Your task to perform on an android device: Open the Play Movies app and select the watchlist tab. Image 0: 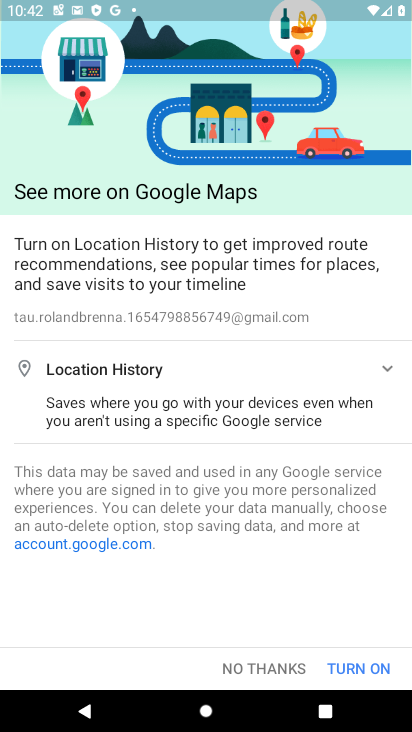
Step 0: press home button
Your task to perform on an android device: Open the Play Movies app and select the watchlist tab. Image 1: 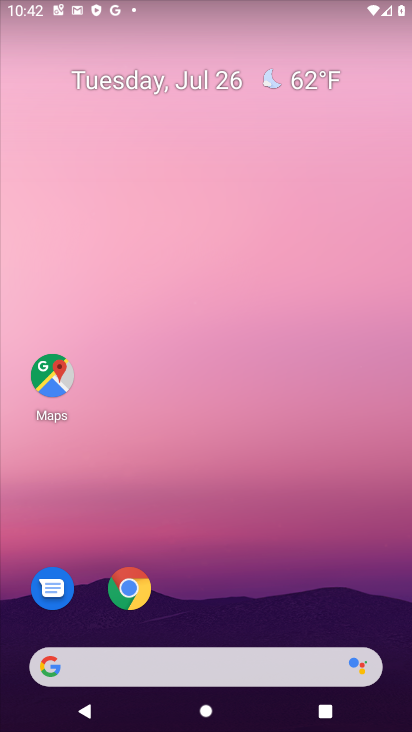
Step 1: drag from (232, 613) to (110, 54)
Your task to perform on an android device: Open the Play Movies app and select the watchlist tab. Image 2: 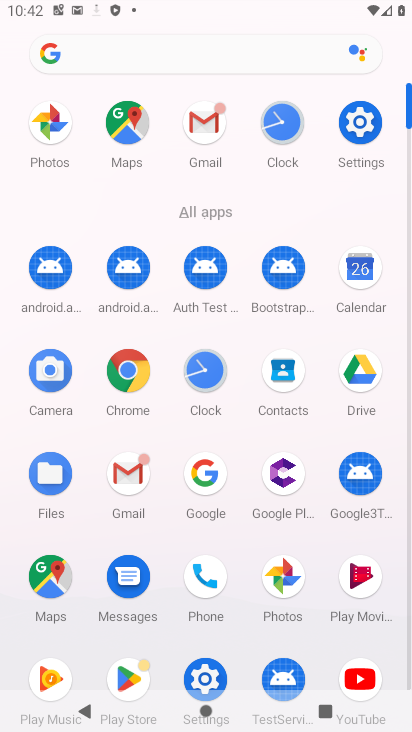
Step 2: click (369, 585)
Your task to perform on an android device: Open the Play Movies app and select the watchlist tab. Image 3: 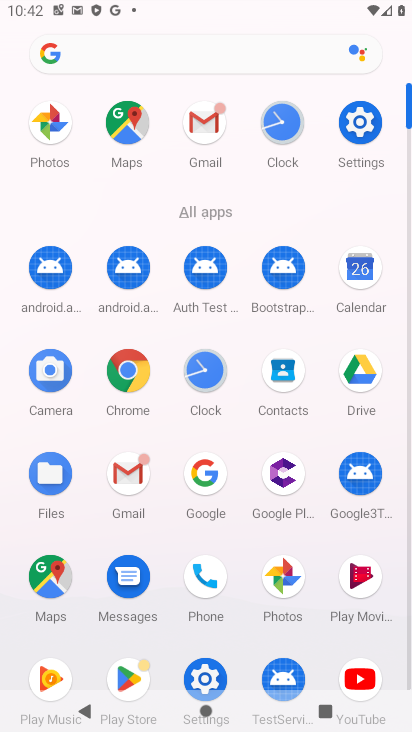
Step 3: click (362, 583)
Your task to perform on an android device: Open the Play Movies app and select the watchlist tab. Image 4: 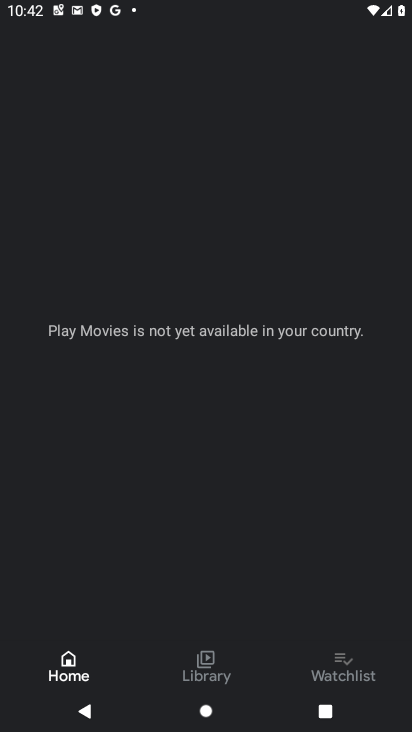
Step 4: click (367, 681)
Your task to perform on an android device: Open the Play Movies app and select the watchlist tab. Image 5: 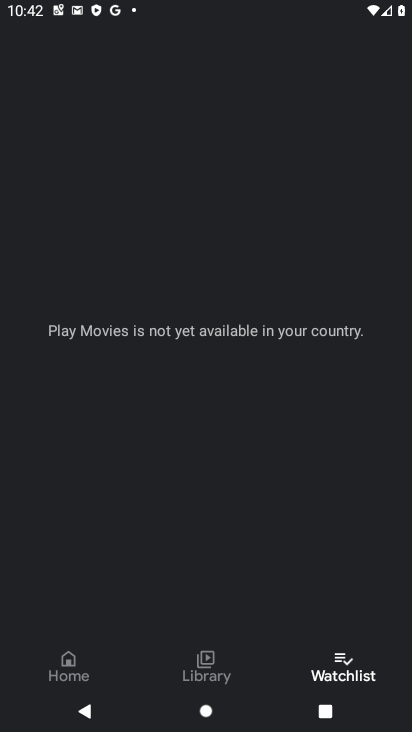
Step 5: task complete